Your task to perform on an android device: Go to internet settings Image 0: 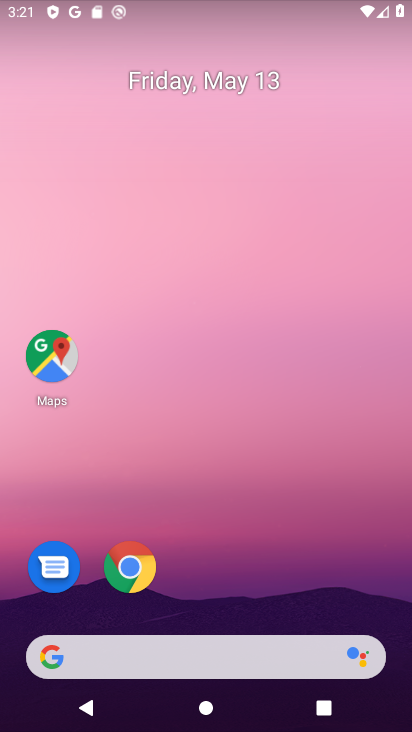
Step 0: drag from (315, 681) to (238, 348)
Your task to perform on an android device: Go to internet settings Image 1: 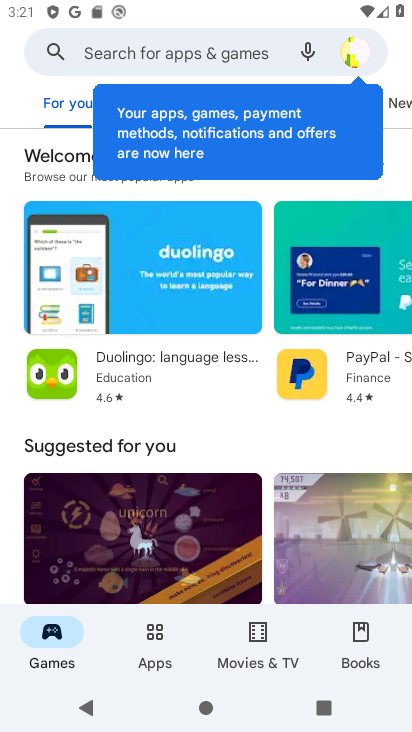
Step 1: click (395, 158)
Your task to perform on an android device: Go to internet settings Image 2: 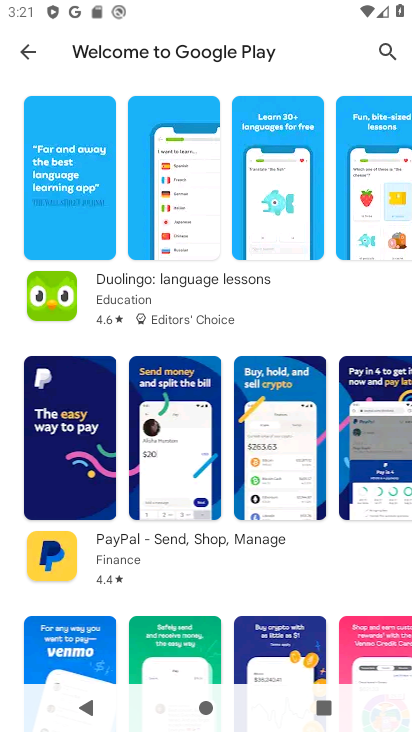
Step 2: click (21, 48)
Your task to perform on an android device: Go to internet settings Image 3: 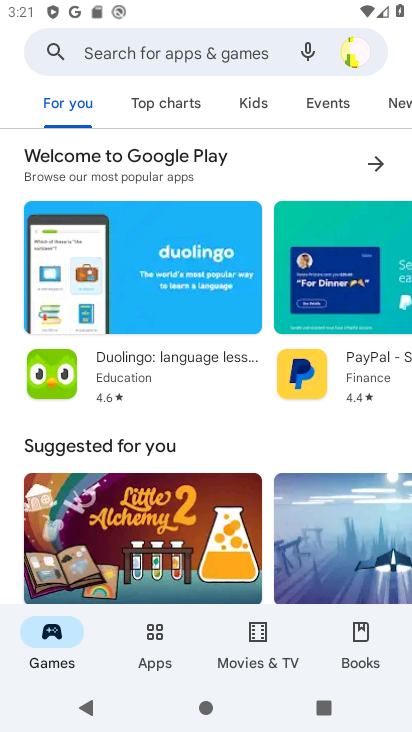
Step 3: press back button
Your task to perform on an android device: Go to internet settings Image 4: 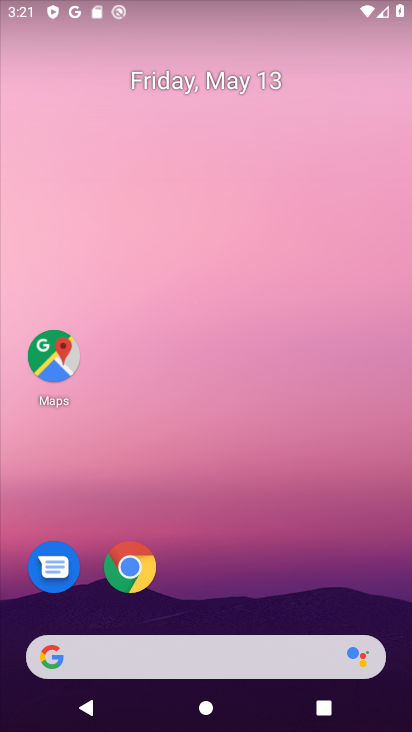
Step 4: drag from (232, 618) to (190, 181)
Your task to perform on an android device: Go to internet settings Image 5: 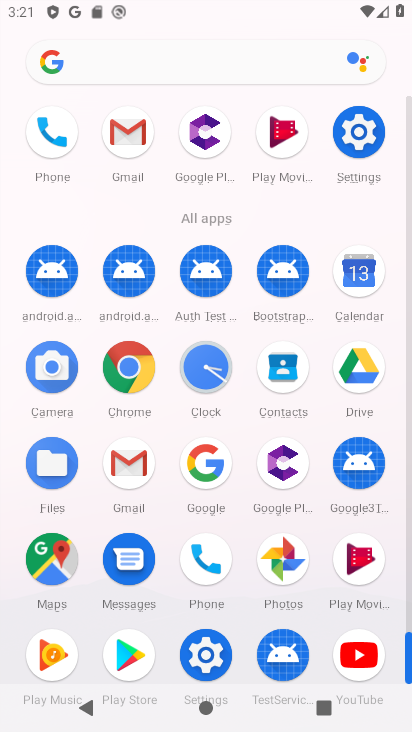
Step 5: click (355, 135)
Your task to perform on an android device: Go to internet settings Image 6: 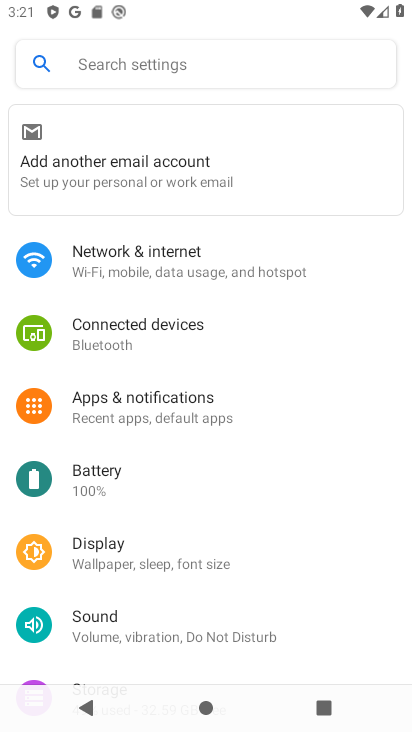
Step 6: click (113, 259)
Your task to perform on an android device: Go to internet settings Image 7: 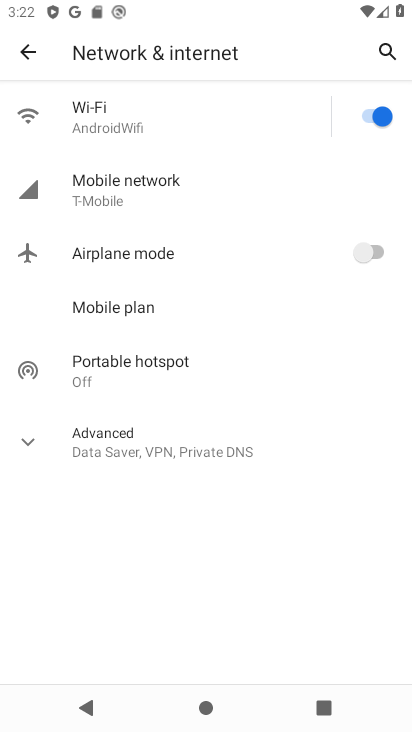
Step 7: click (98, 200)
Your task to perform on an android device: Go to internet settings Image 8: 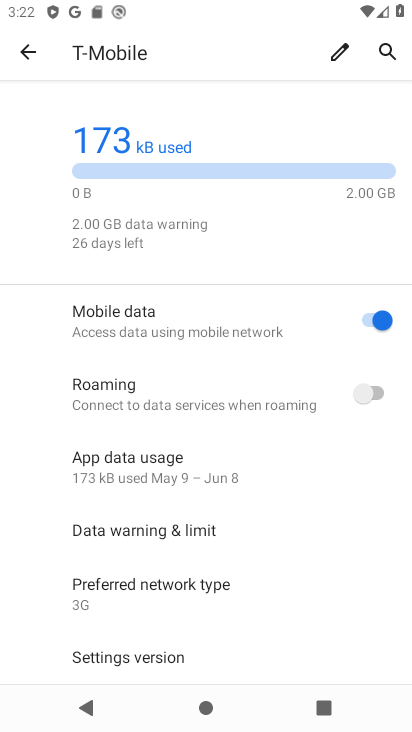
Step 8: task complete